Your task to perform on an android device: open a new tab in the chrome app Image 0: 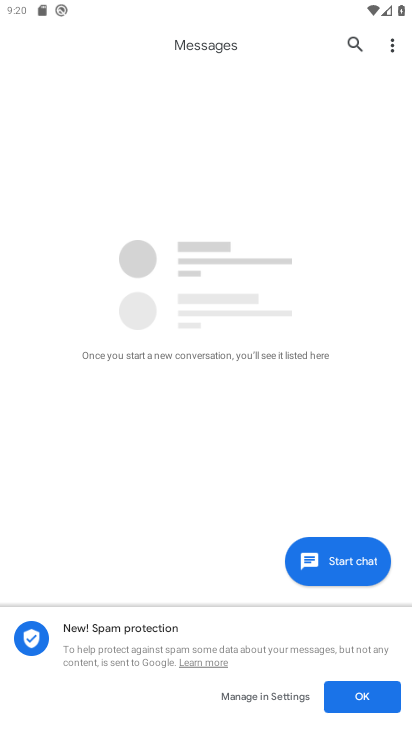
Step 0: press home button
Your task to perform on an android device: open a new tab in the chrome app Image 1: 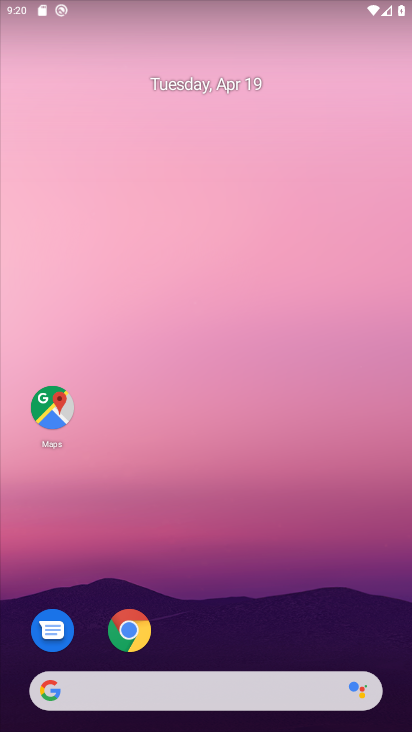
Step 1: click (137, 653)
Your task to perform on an android device: open a new tab in the chrome app Image 2: 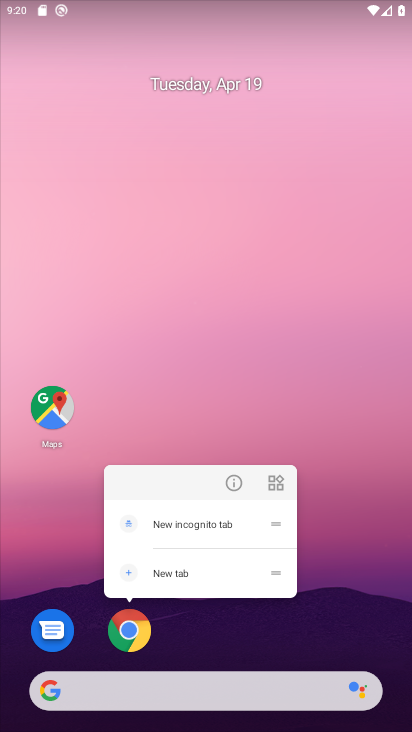
Step 2: click (132, 627)
Your task to perform on an android device: open a new tab in the chrome app Image 3: 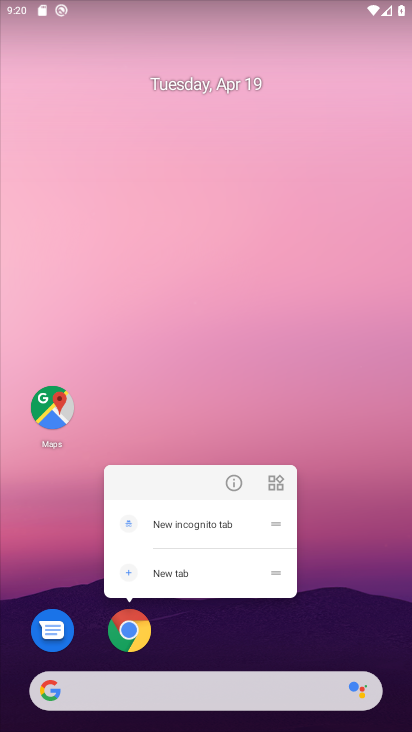
Step 3: click (132, 635)
Your task to perform on an android device: open a new tab in the chrome app Image 4: 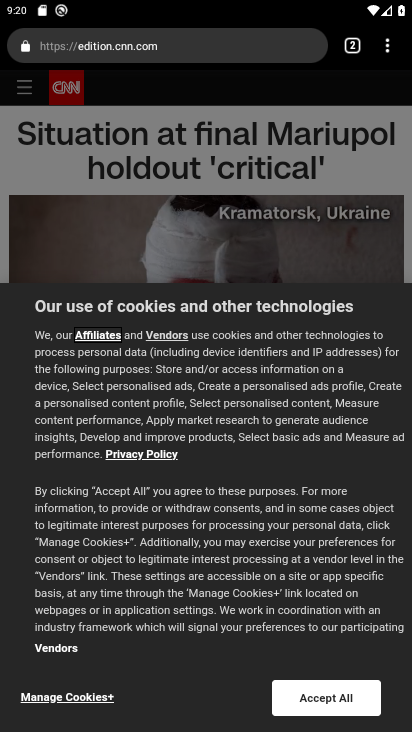
Step 4: drag from (344, 55) to (334, 266)
Your task to perform on an android device: open a new tab in the chrome app Image 5: 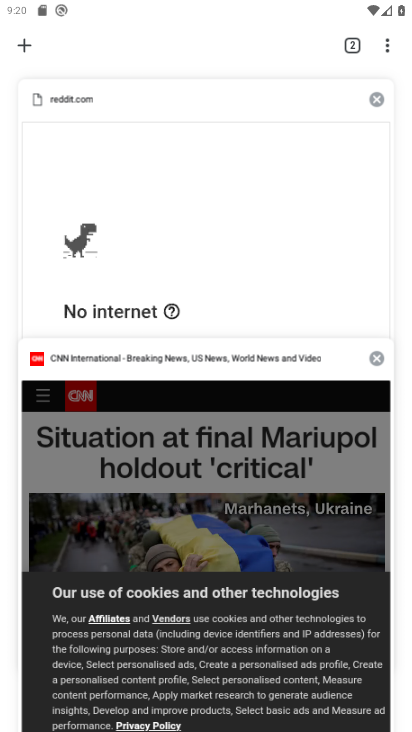
Step 5: click (26, 48)
Your task to perform on an android device: open a new tab in the chrome app Image 6: 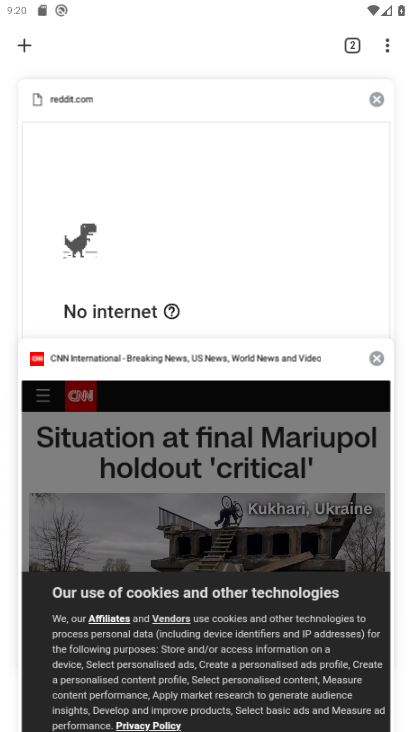
Step 6: click (20, 47)
Your task to perform on an android device: open a new tab in the chrome app Image 7: 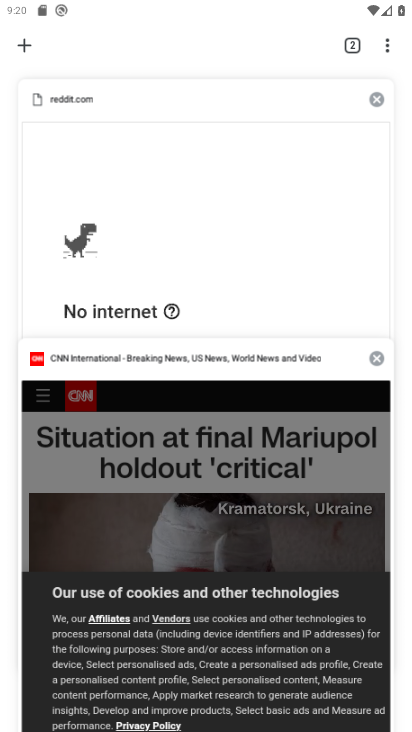
Step 7: click (28, 58)
Your task to perform on an android device: open a new tab in the chrome app Image 8: 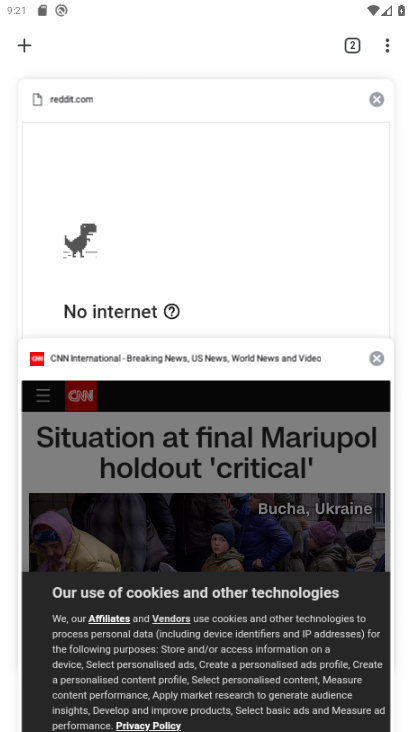
Step 8: click (28, 44)
Your task to perform on an android device: open a new tab in the chrome app Image 9: 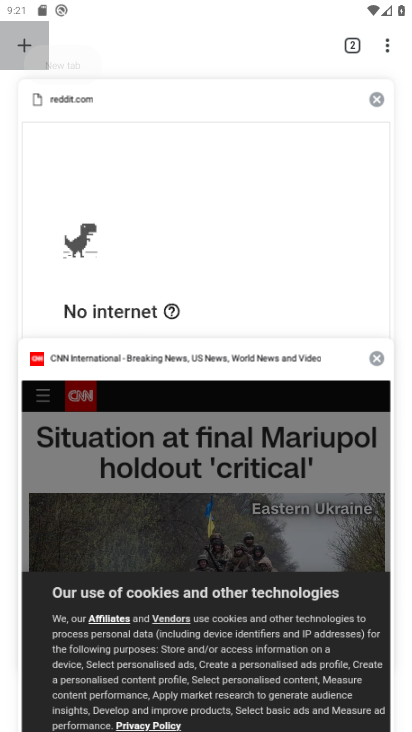
Step 9: click (27, 40)
Your task to perform on an android device: open a new tab in the chrome app Image 10: 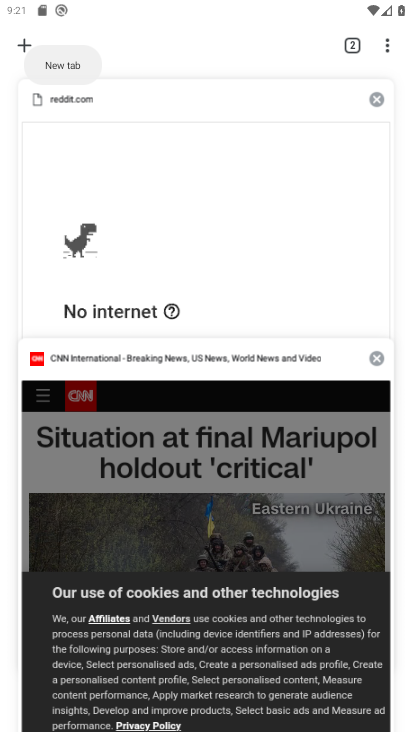
Step 10: task complete